Your task to perform on an android device: Go to Yahoo.com Image 0: 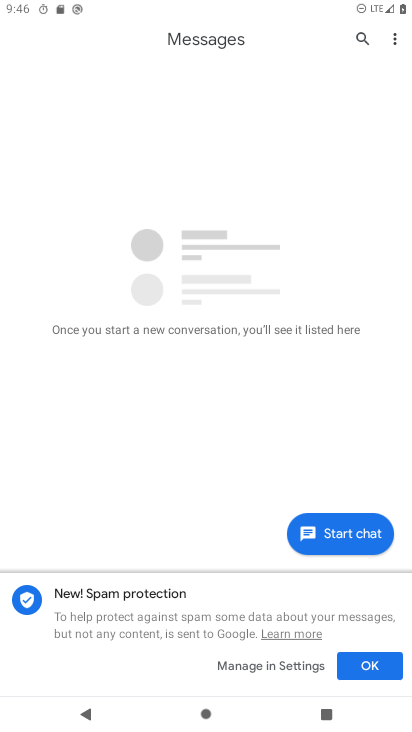
Step 0: press home button
Your task to perform on an android device: Go to Yahoo.com Image 1: 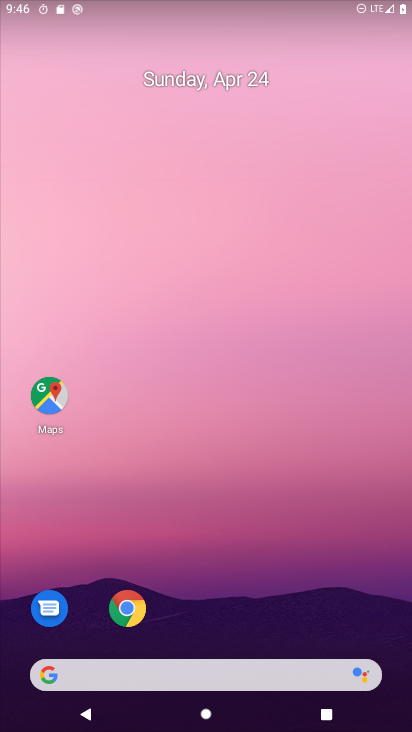
Step 1: click (274, 667)
Your task to perform on an android device: Go to Yahoo.com Image 2: 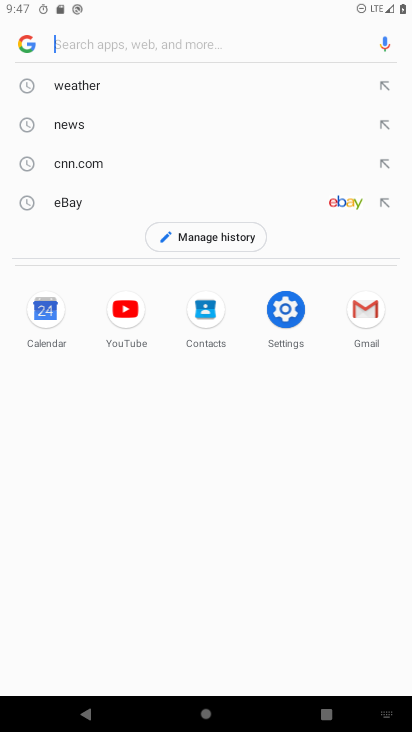
Step 2: type "yahoo.com"
Your task to perform on an android device: Go to Yahoo.com Image 3: 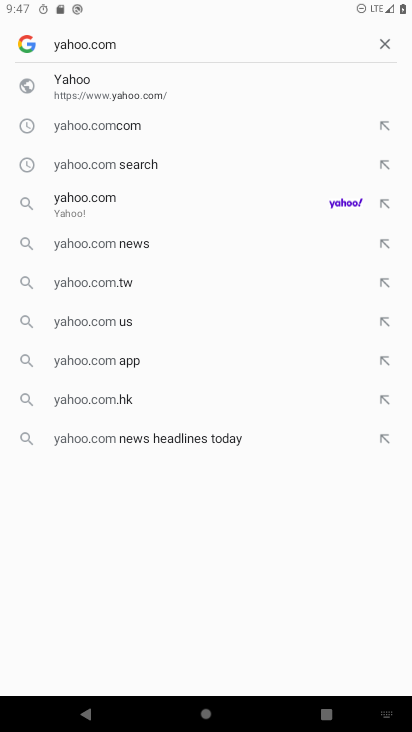
Step 3: click (130, 200)
Your task to perform on an android device: Go to Yahoo.com Image 4: 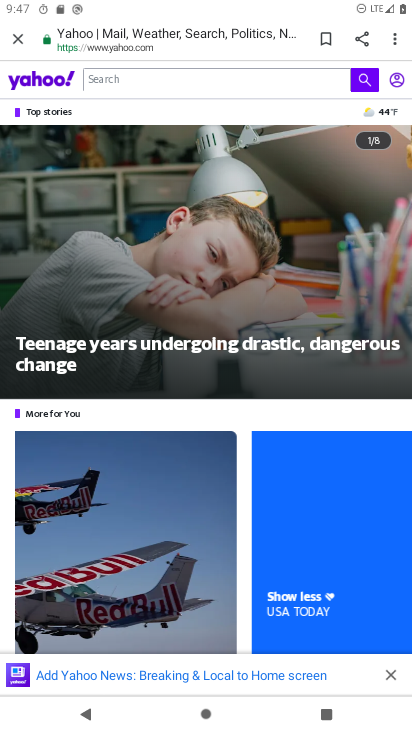
Step 4: task complete